Your task to perform on an android device: clear history in the chrome app Image 0: 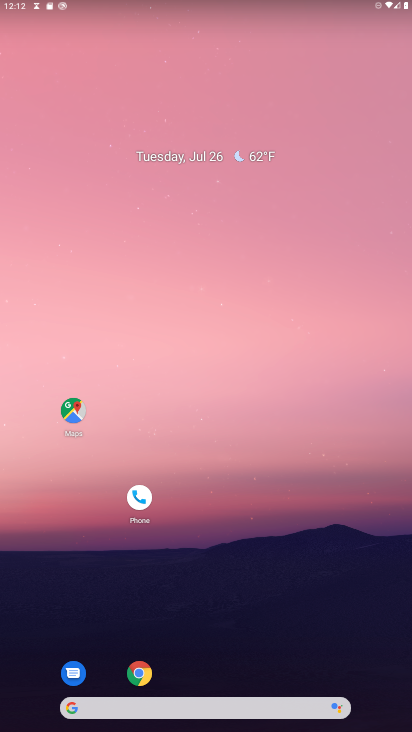
Step 0: drag from (233, 658) to (153, 11)
Your task to perform on an android device: clear history in the chrome app Image 1: 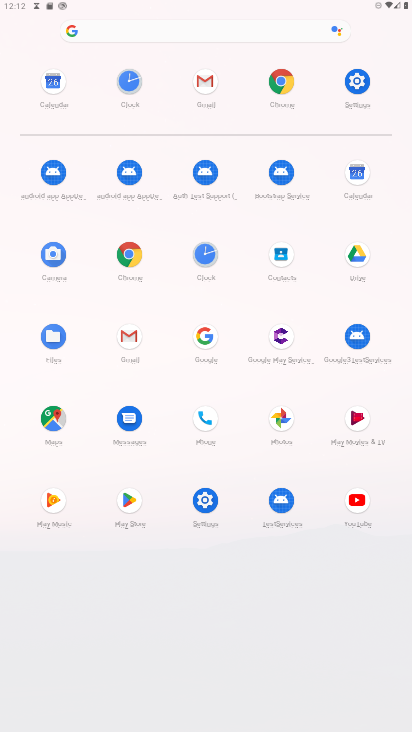
Step 1: click (287, 90)
Your task to perform on an android device: clear history in the chrome app Image 2: 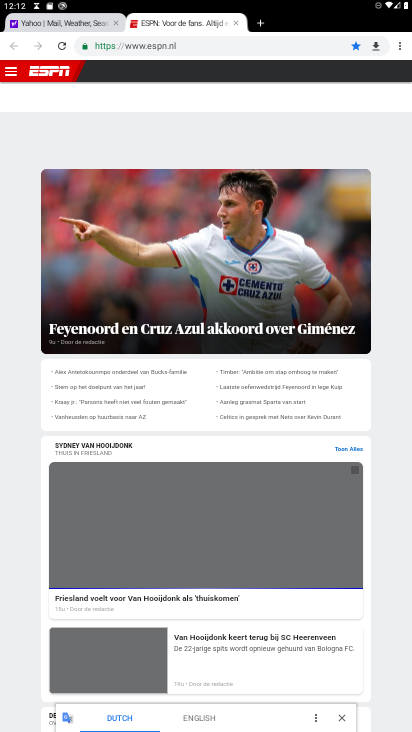
Step 2: drag from (400, 46) to (315, 136)
Your task to perform on an android device: clear history in the chrome app Image 3: 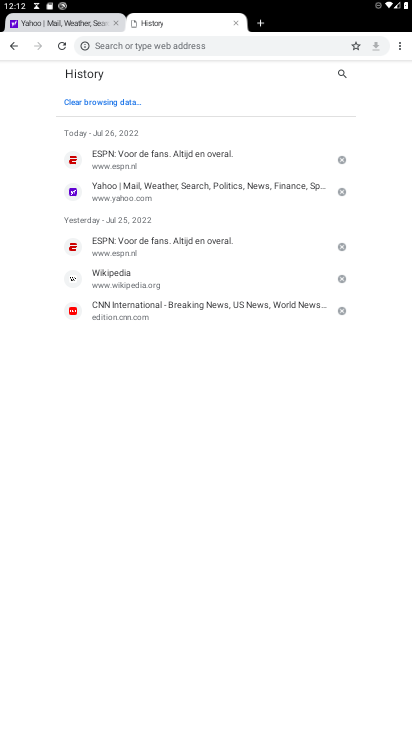
Step 3: click (97, 103)
Your task to perform on an android device: clear history in the chrome app Image 4: 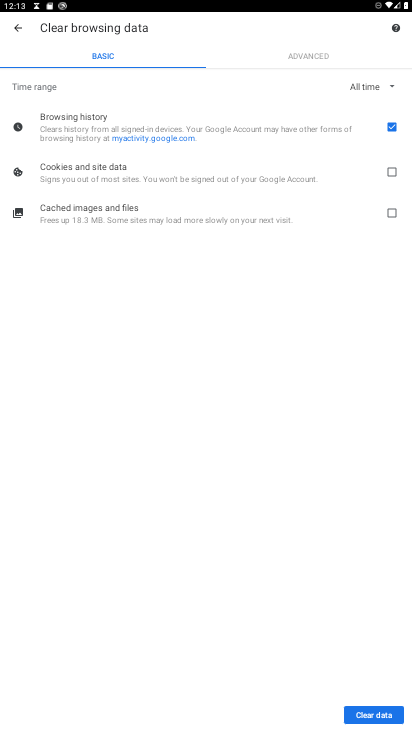
Step 4: click (363, 717)
Your task to perform on an android device: clear history in the chrome app Image 5: 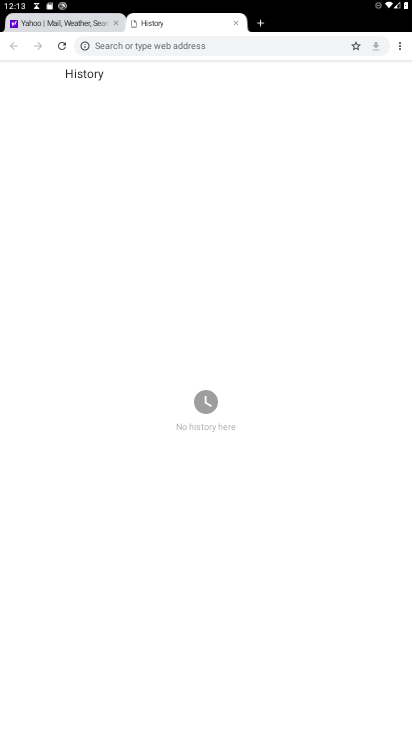
Step 5: task complete